Your task to perform on an android device: snooze an email in the gmail app Image 0: 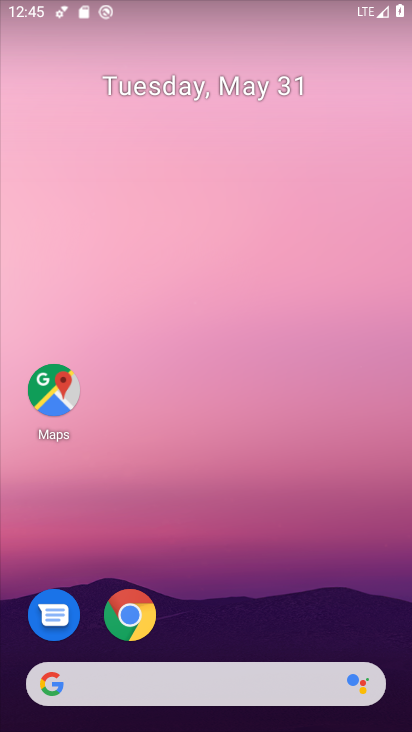
Step 0: drag from (211, 599) to (298, 124)
Your task to perform on an android device: snooze an email in the gmail app Image 1: 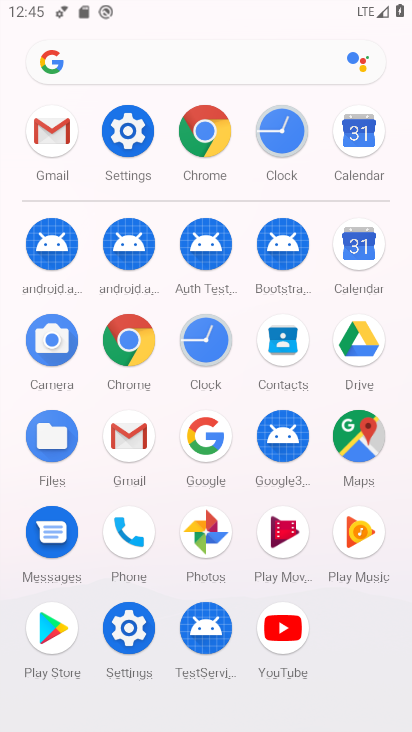
Step 1: click (144, 443)
Your task to perform on an android device: snooze an email in the gmail app Image 2: 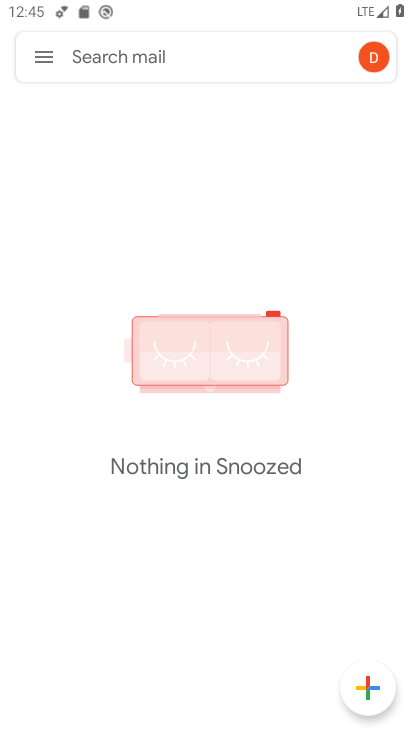
Step 2: click (43, 60)
Your task to perform on an android device: snooze an email in the gmail app Image 3: 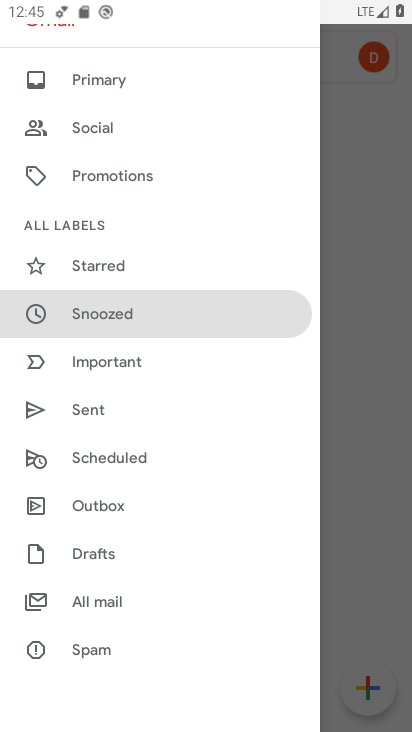
Step 3: click (103, 608)
Your task to perform on an android device: snooze an email in the gmail app Image 4: 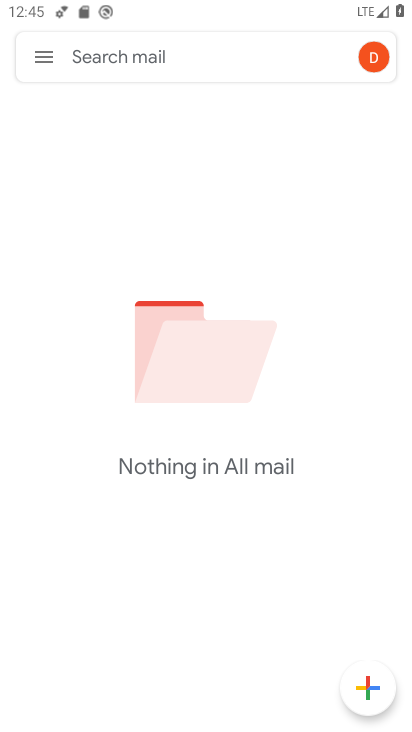
Step 4: task complete